Your task to perform on an android device: turn off notifications in google photos Image 0: 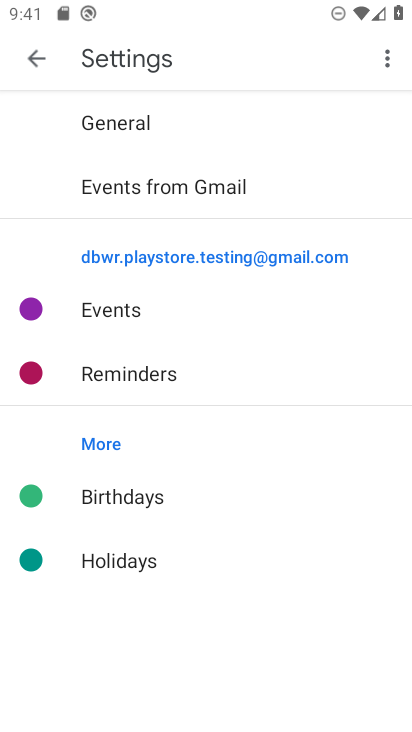
Step 0: press home button
Your task to perform on an android device: turn off notifications in google photos Image 1: 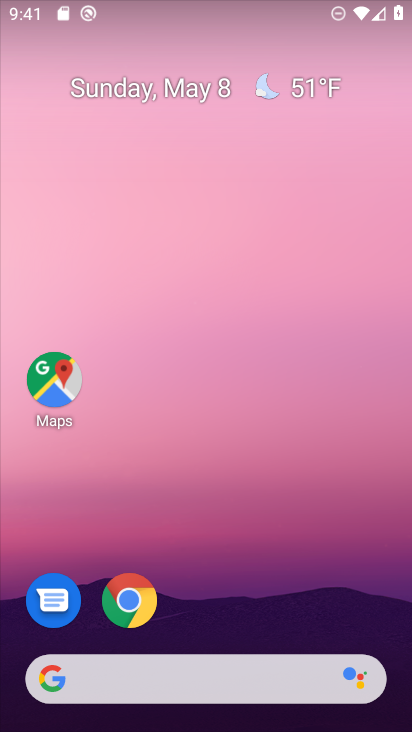
Step 1: drag from (332, 625) to (296, 7)
Your task to perform on an android device: turn off notifications in google photos Image 2: 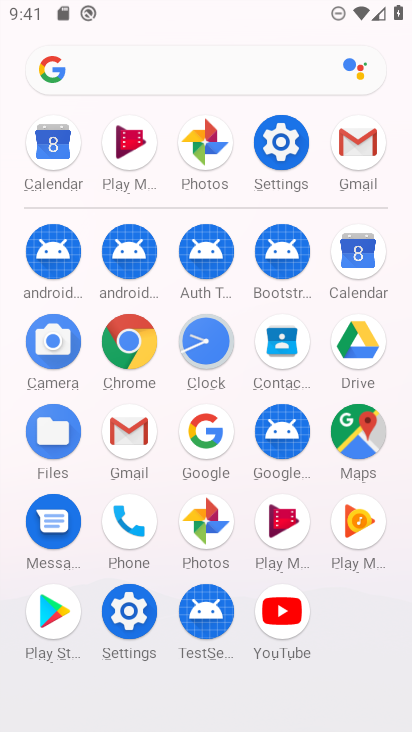
Step 2: click (201, 158)
Your task to perform on an android device: turn off notifications in google photos Image 3: 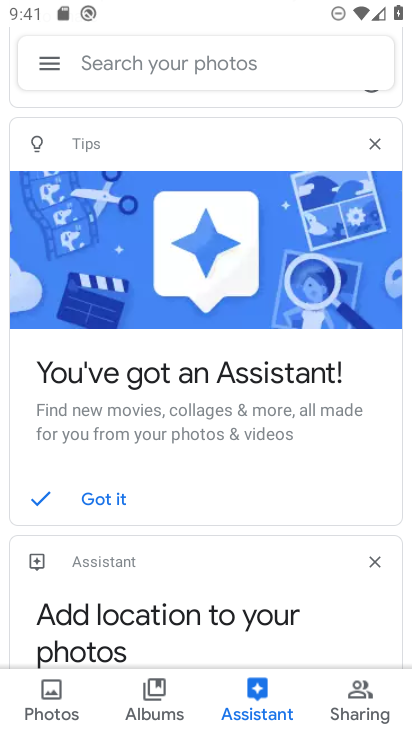
Step 3: click (51, 61)
Your task to perform on an android device: turn off notifications in google photos Image 4: 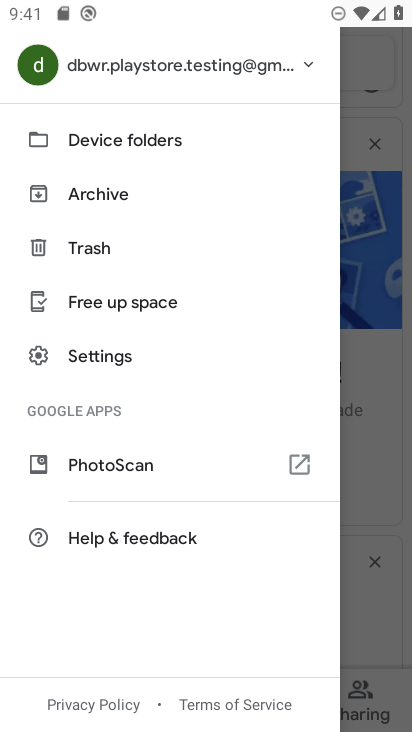
Step 4: click (113, 351)
Your task to perform on an android device: turn off notifications in google photos Image 5: 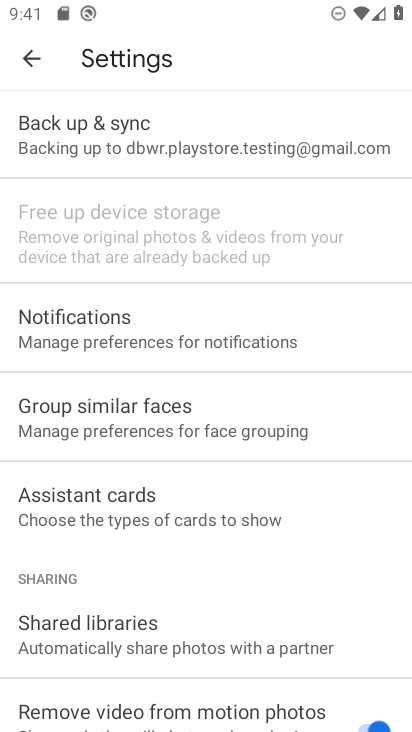
Step 5: click (111, 335)
Your task to perform on an android device: turn off notifications in google photos Image 6: 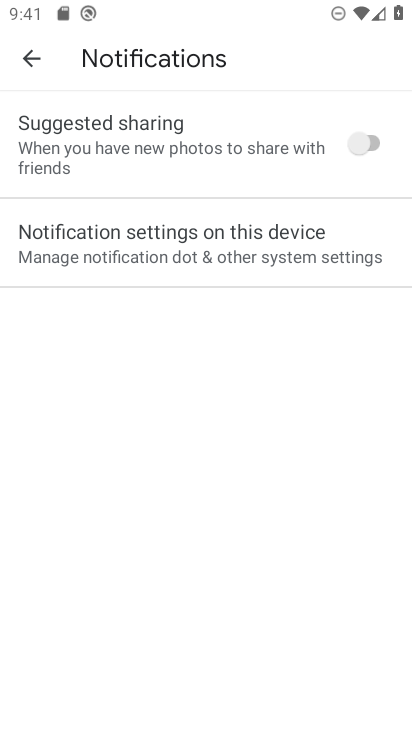
Step 6: click (342, 243)
Your task to perform on an android device: turn off notifications in google photos Image 7: 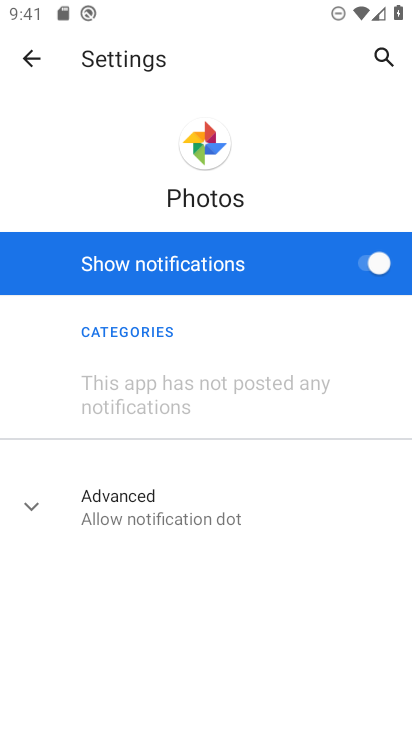
Step 7: click (354, 262)
Your task to perform on an android device: turn off notifications in google photos Image 8: 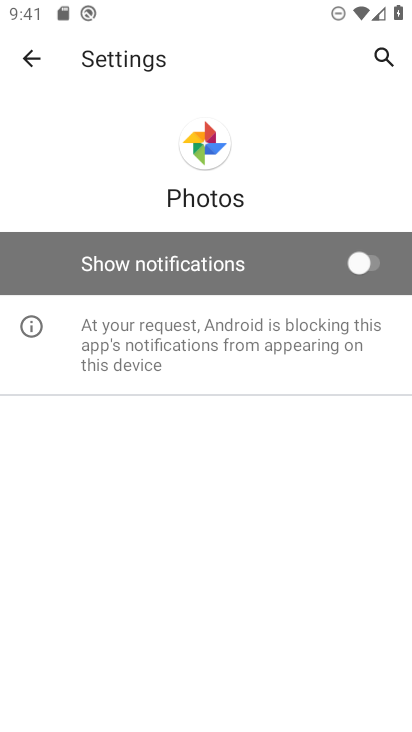
Step 8: task complete